Your task to perform on an android device: turn off notifications settings in the gmail app Image 0: 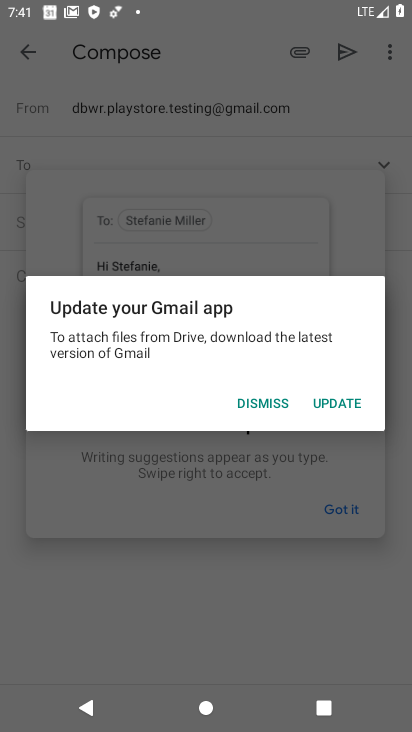
Step 0: click (341, 398)
Your task to perform on an android device: turn off notifications settings in the gmail app Image 1: 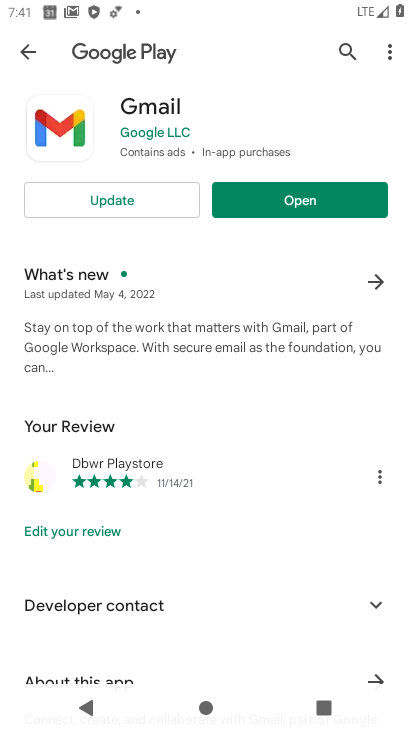
Step 1: click (341, 201)
Your task to perform on an android device: turn off notifications settings in the gmail app Image 2: 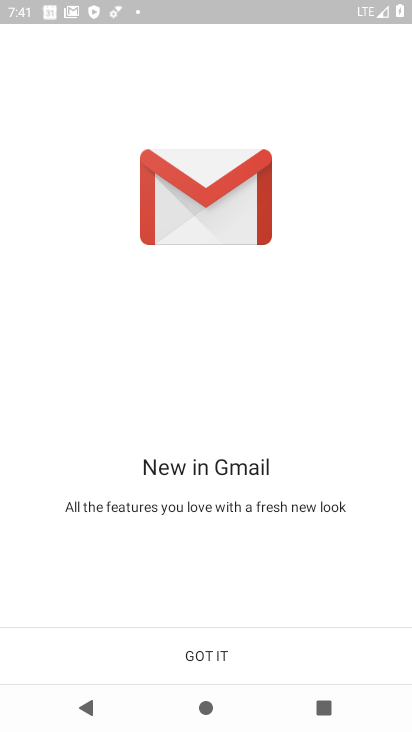
Step 2: click (232, 659)
Your task to perform on an android device: turn off notifications settings in the gmail app Image 3: 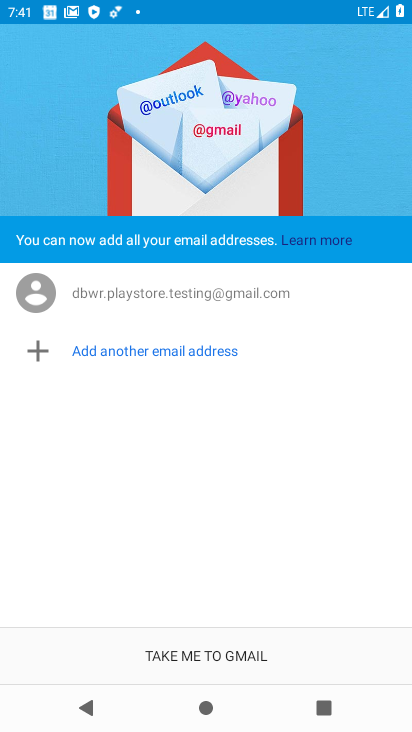
Step 3: click (235, 652)
Your task to perform on an android device: turn off notifications settings in the gmail app Image 4: 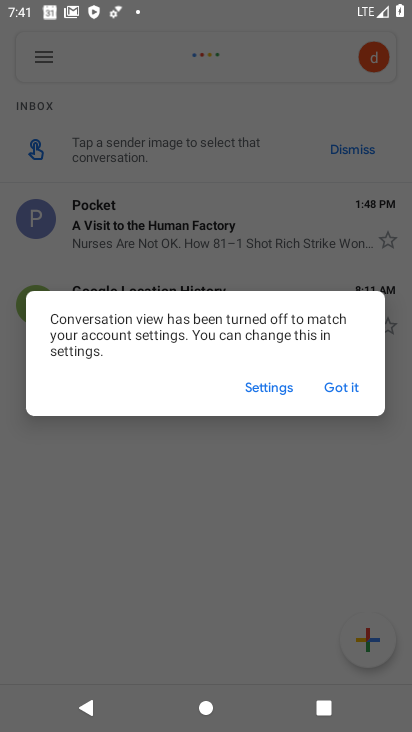
Step 4: click (349, 380)
Your task to perform on an android device: turn off notifications settings in the gmail app Image 5: 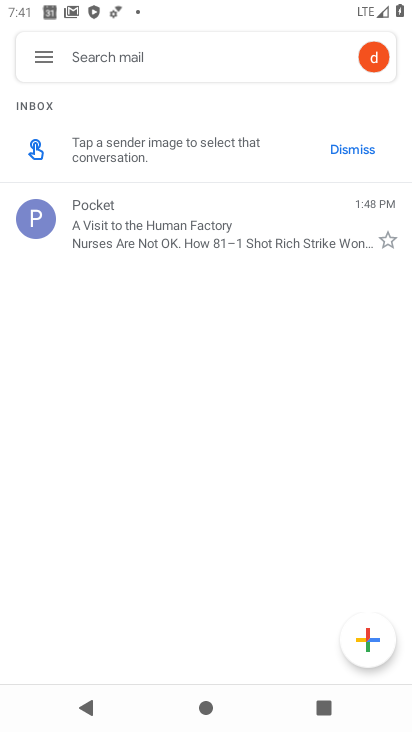
Step 5: click (44, 50)
Your task to perform on an android device: turn off notifications settings in the gmail app Image 6: 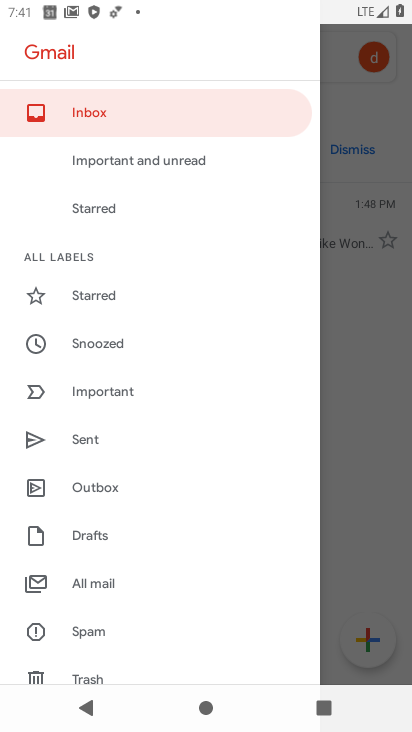
Step 6: drag from (181, 590) to (215, 393)
Your task to perform on an android device: turn off notifications settings in the gmail app Image 7: 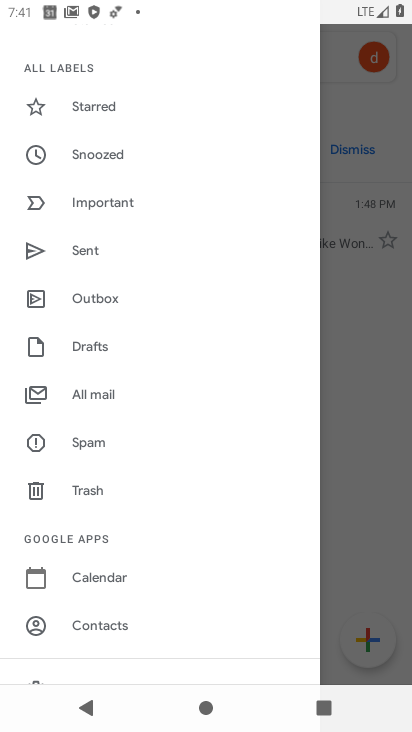
Step 7: drag from (183, 576) to (197, 421)
Your task to perform on an android device: turn off notifications settings in the gmail app Image 8: 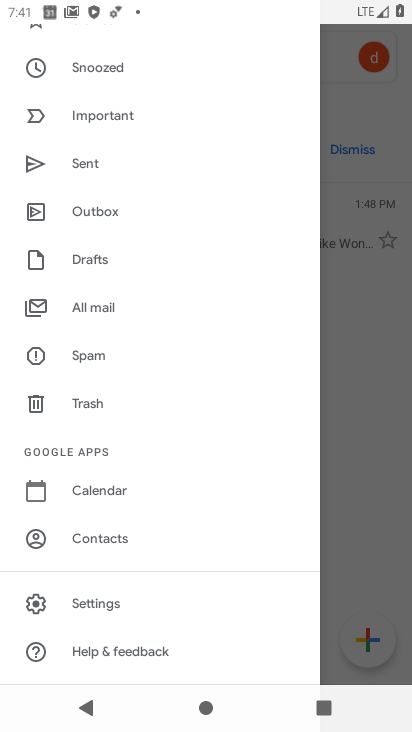
Step 8: click (102, 608)
Your task to perform on an android device: turn off notifications settings in the gmail app Image 9: 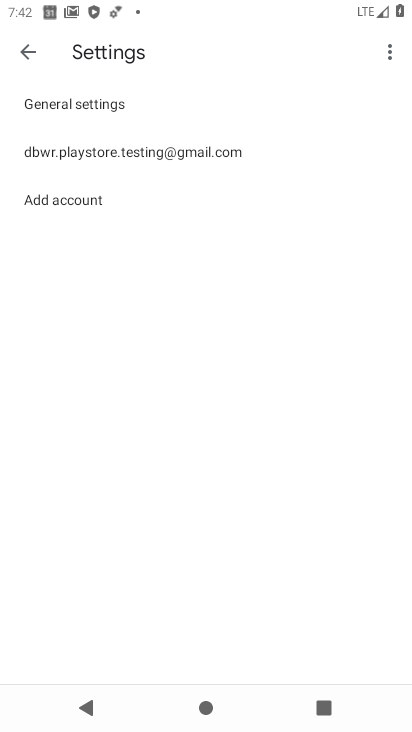
Step 9: click (117, 101)
Your task to perform on an android device: turn off notifications settings in the gmail app Image 10: 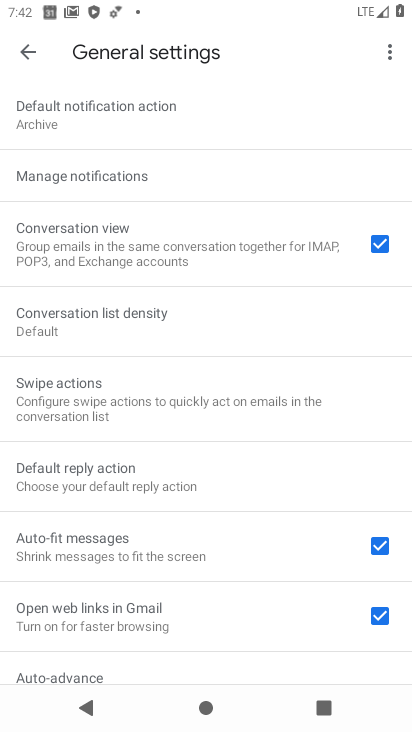
Step 10: click (151, 166)
Your task to perform on an android device: turn off notifications settings in the gmail app Image 11: 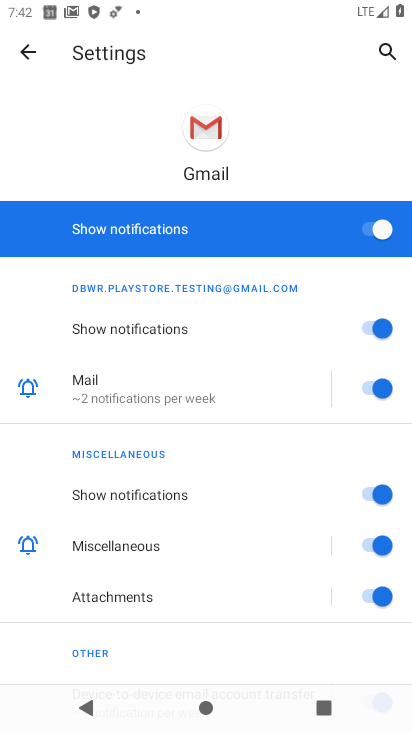
Step 11: click (367, 225)
Your task to perform on an android device: turn off notifications settings in the gmail app Image 12: 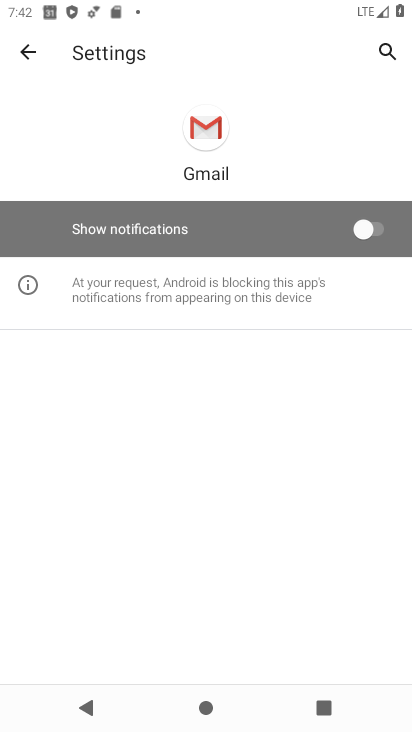
Step 12: task complete